Your task to perform on an android device: Go to CNN.com Image 0: 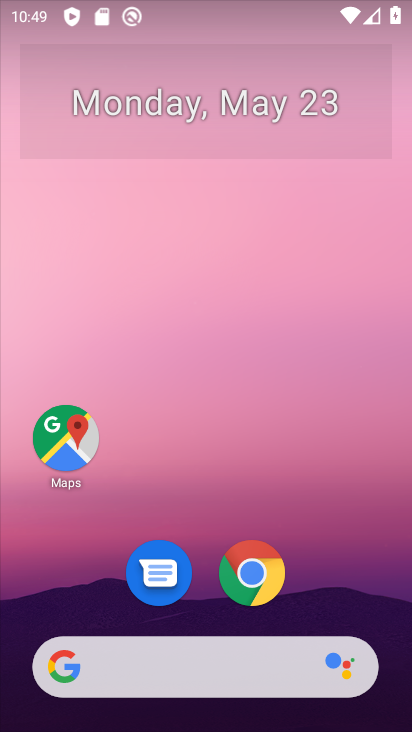
Step 0: drag from (354, 516) to (316, 171)
Your task to perform on an android device: Go to CNN.com Image 1: 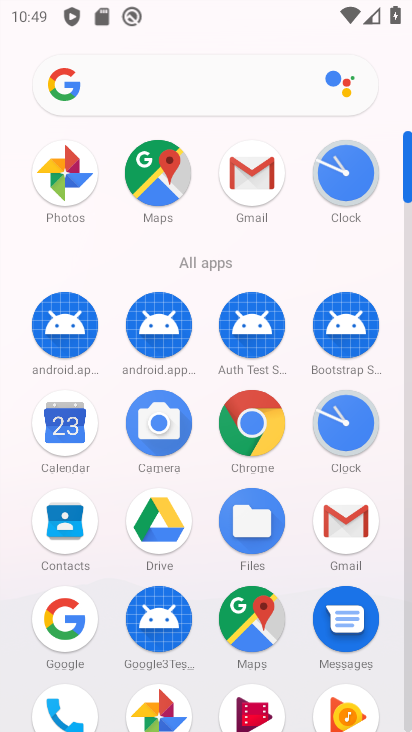
Step 1: click (248, 442)
Your task to perform on an android device: Go to CNN.com Image 2: 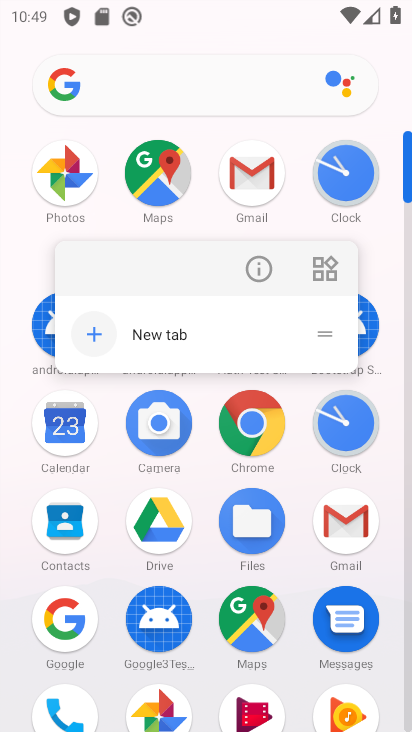
Step 2: click (252, 439)
Your task to perform on an android device: Go to CNN.com Image 3: 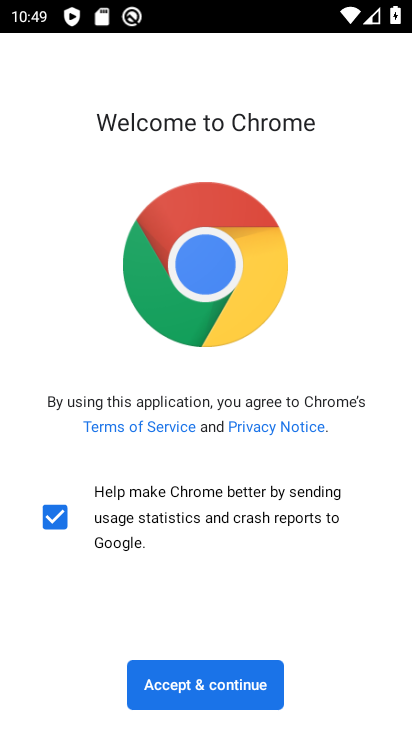
Step 3: click (202, 679)
Your task to perform on an android device: Go to CNN.com Image 4: 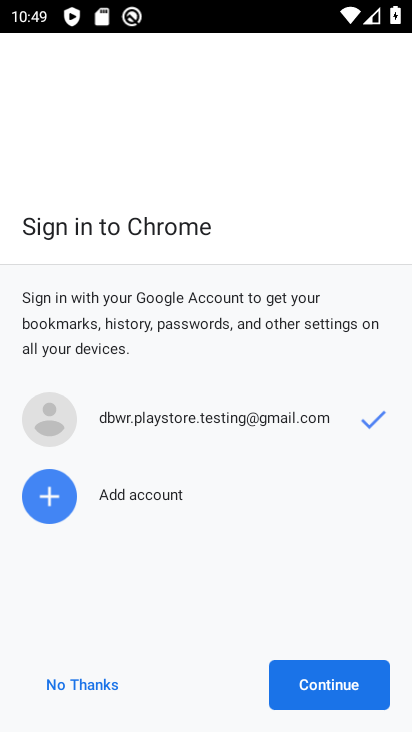
Step 4: click (349, 687)
Your task to perform on an android device: Go to CNN.com Image 5: 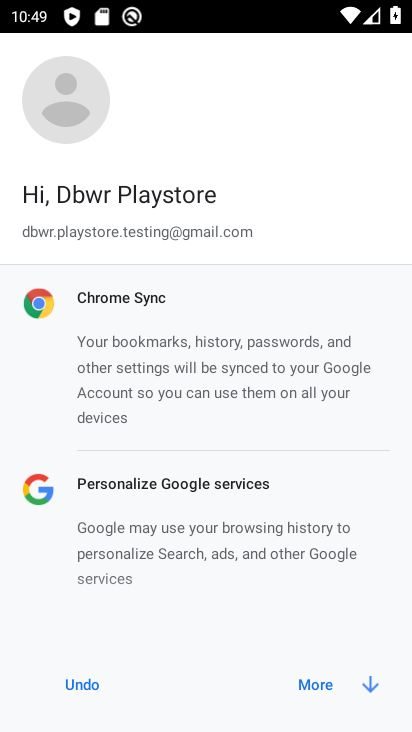
Step 5: click (329, 690)
Your task to perform on an android device: Go to CNN.com Image 6: 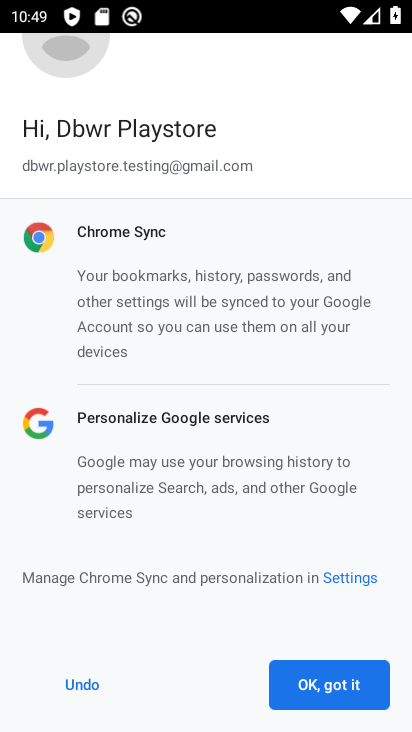
Step 6: click (327, 689)
Your task to perform on an android device: Go to CNN.com Image 7: 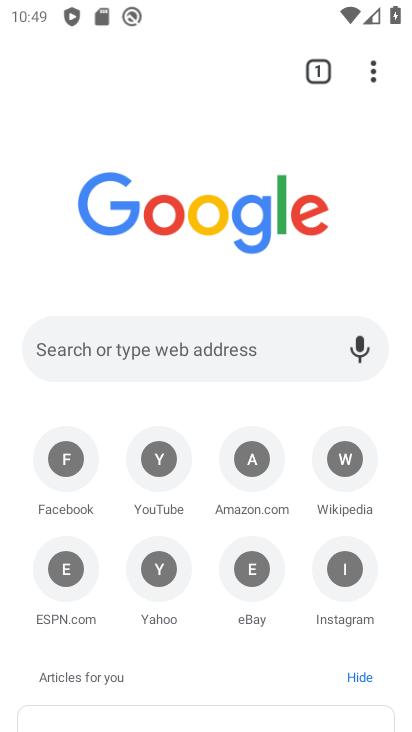
Step 7: click (194, 356)
Your task to perform on an android device: Go to CNN.com Image 8: 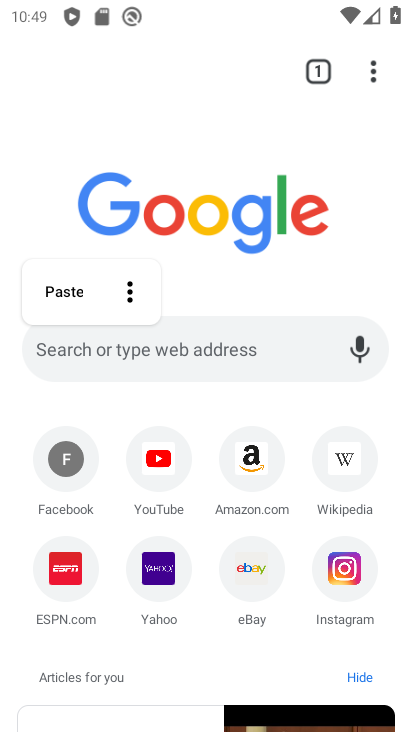
Step 8: type "cnn.com"
Your task to perform on an android device: Go to CNN.com Image 9: 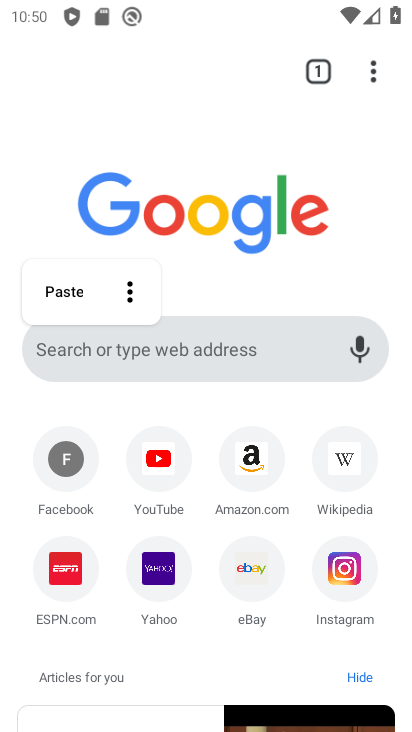
Step 9: click (241, 351)
Your task to perform on an android device: Go to CNN.com Image 10: 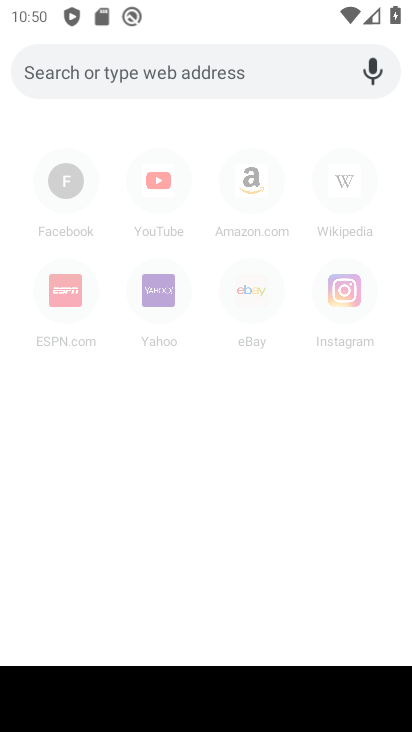
Step 10: type "cnn.com"
Your task to perform on an android device: Go to CNN.com Image 11: 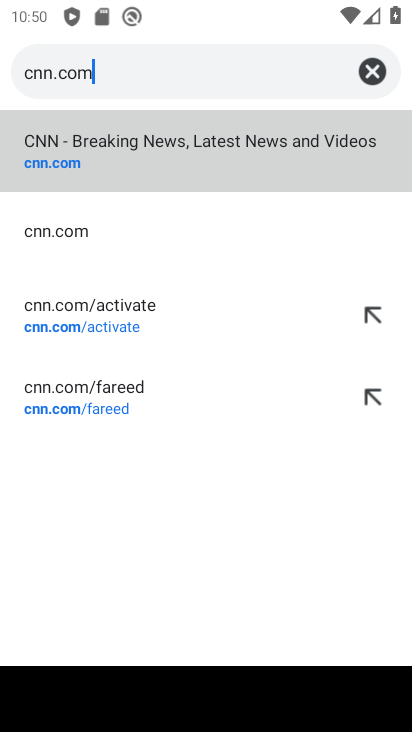
Step 11: click (88, 137)
Your task to perform on an android device: Go to CNN.com Image 12: 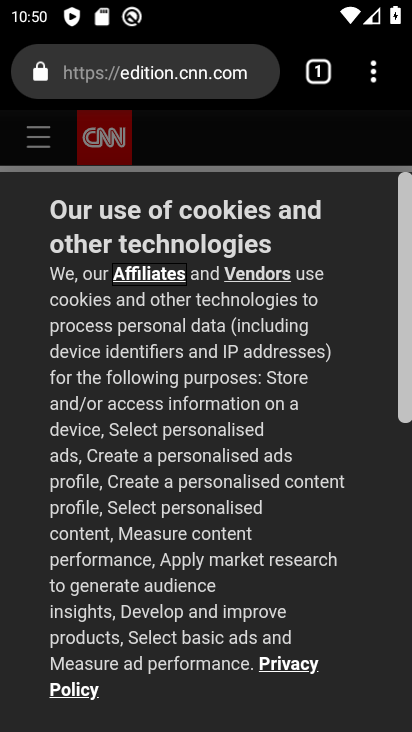
Step 12: task complete